Your task to perform on an android device: Do I have any events tomorrow? Image 0: 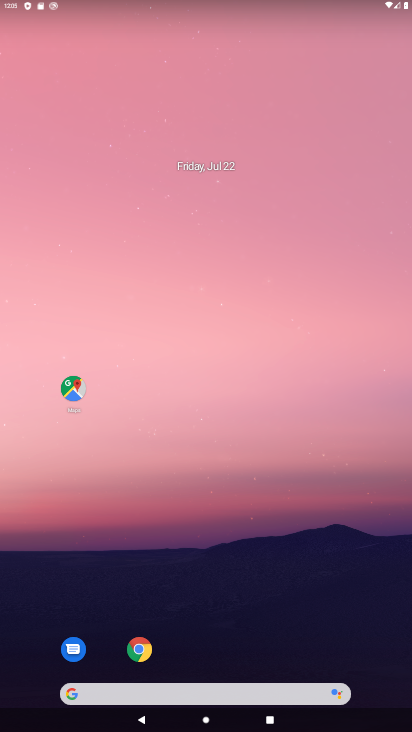
Step 0: drag from (233, 639) to (279, 109)
Your task to perform on an android device: Do I have any events tomorrow? Image 1: 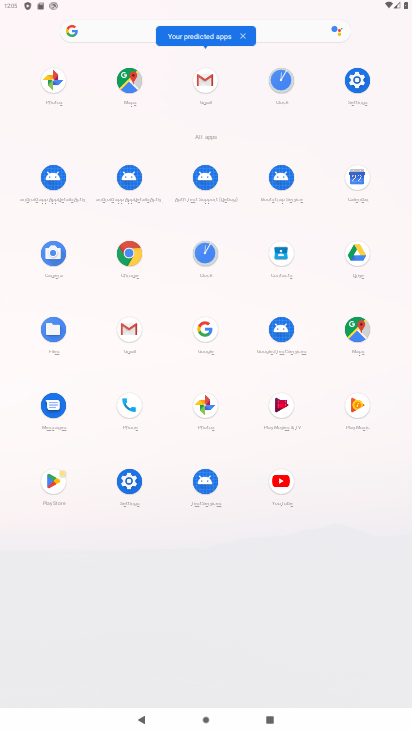
Step 1: click (361, 180)
Your task to perform on an android device: Do I have any events tomorrow? Image 2: 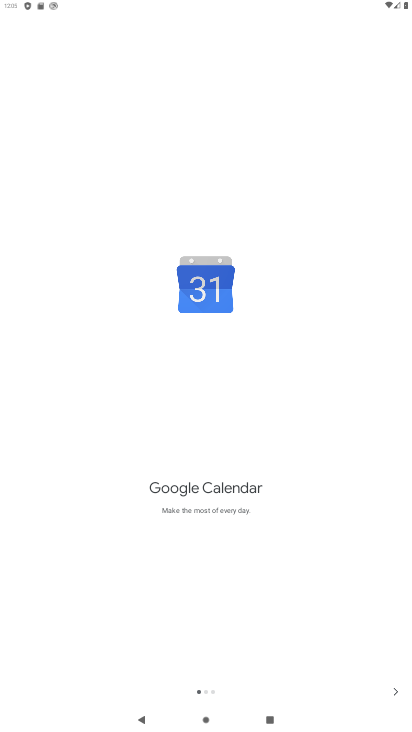
Step 2: click (393, 686)
Your task to perform on an android device: Do I have any events tomorrow? Image 3: 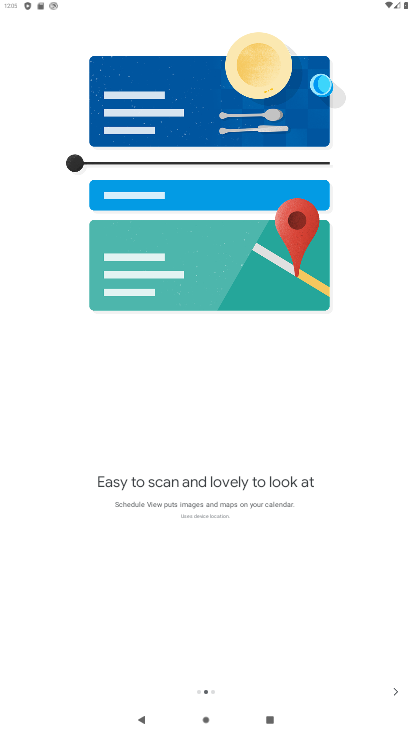
Step 3: click (393, 686)
Your task to perform on an android device: Do I have any events tomorrow? Image 4: 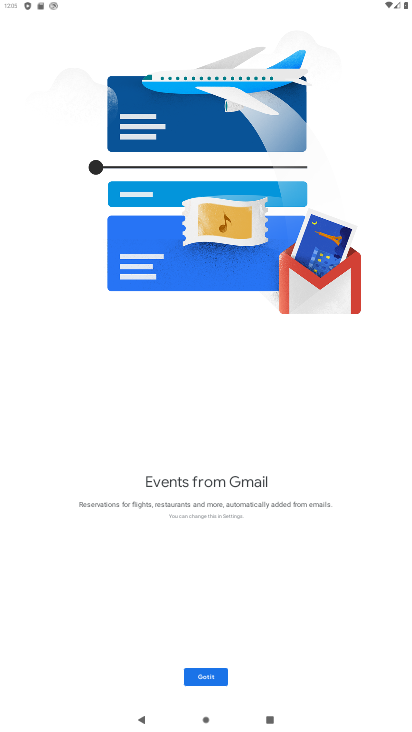
Step 4: click (190, 671)
Your task to perform on an android device: Do I have any events tomorrow? Image 5: 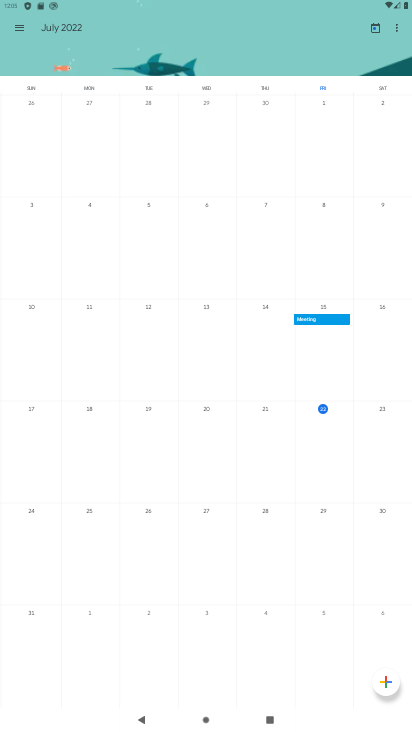
Step 5: click (315, 421)
Your task to perform on an android device: Do I have any events tomorrow? Image 6: 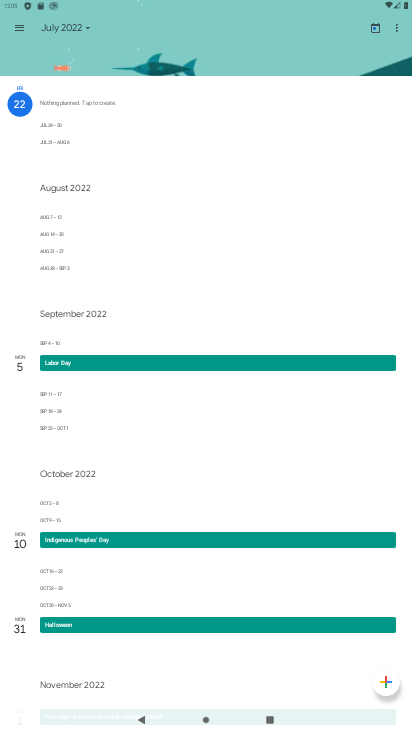
Step 6: task complete